Your task to perform on an android device: turn off improve location accuracy Image 0: 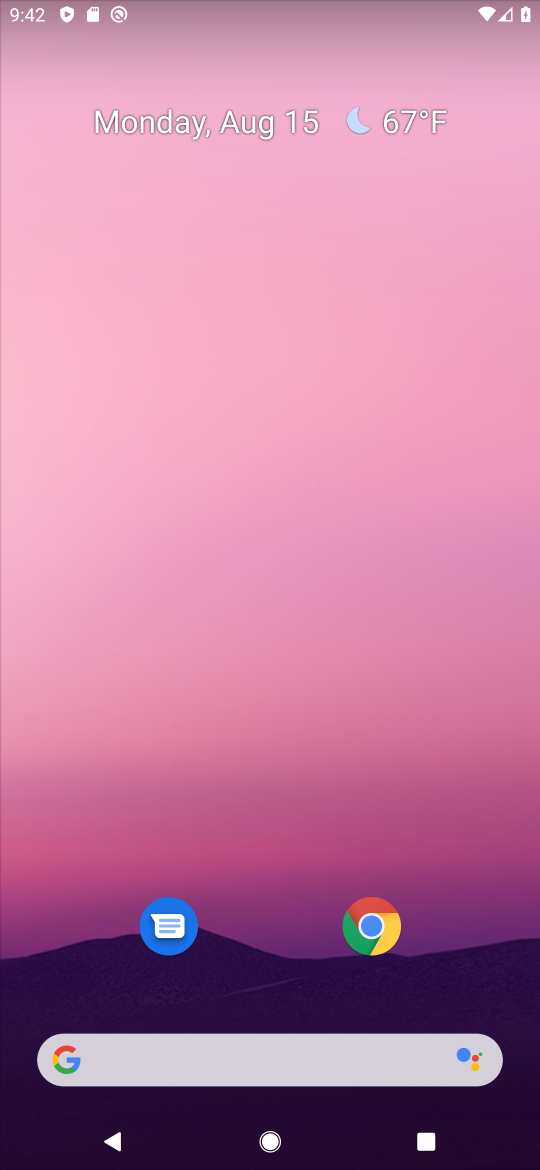
Step 0: press home button
Your task to perform on an android device: turn off improve location accuracy Image 1: 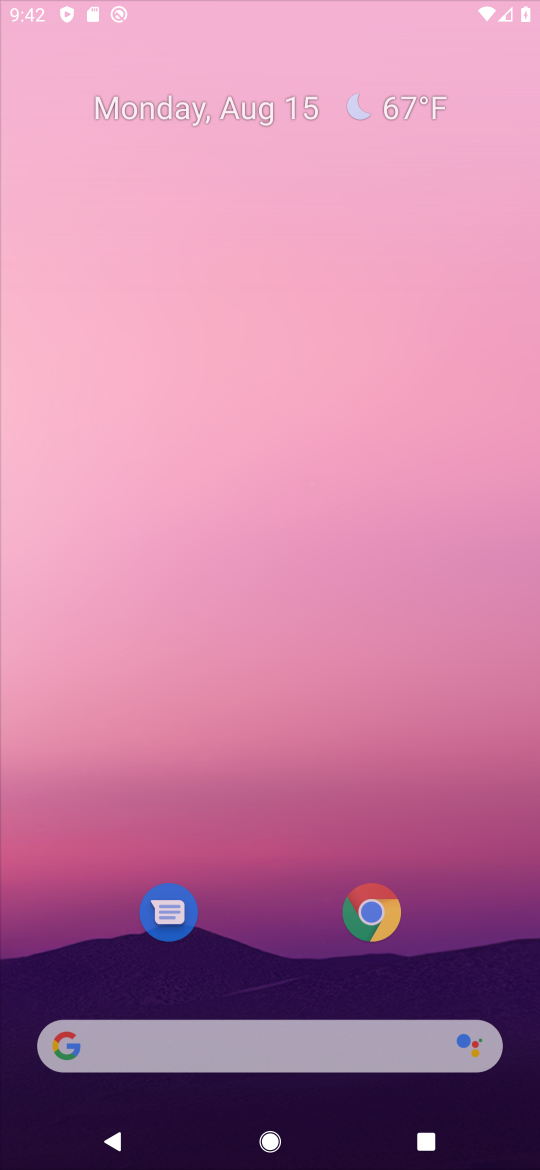
Step 1: drag from (272, 981) to (300, 108)
Your task to perform on an android device: turn off improve location accuracy Image 2: 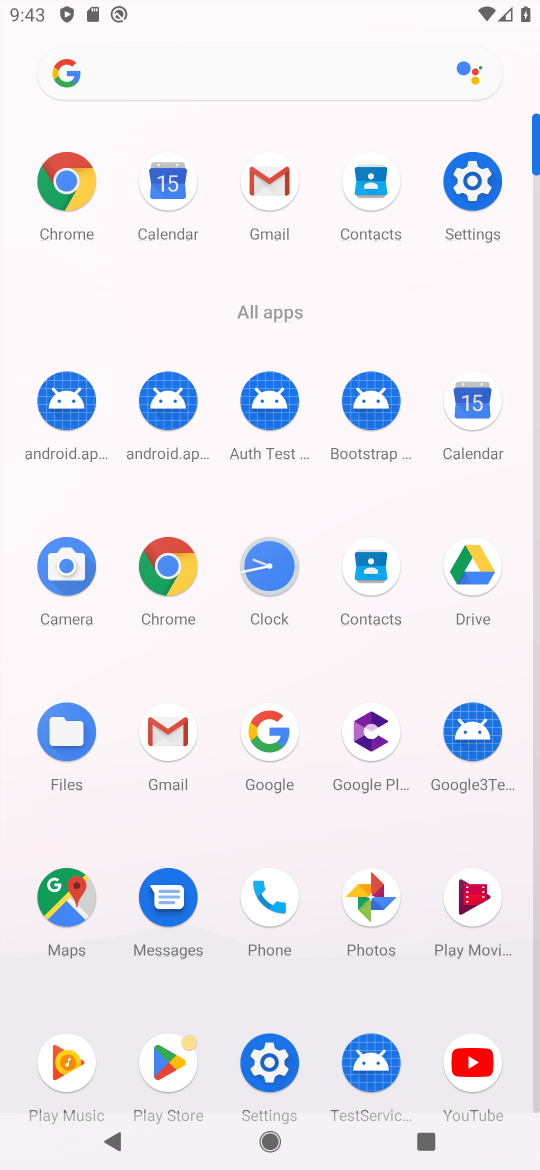
Step 2: click (271, 201)
Your task to perform on an android device: turn off improve location accuracy Image 3: 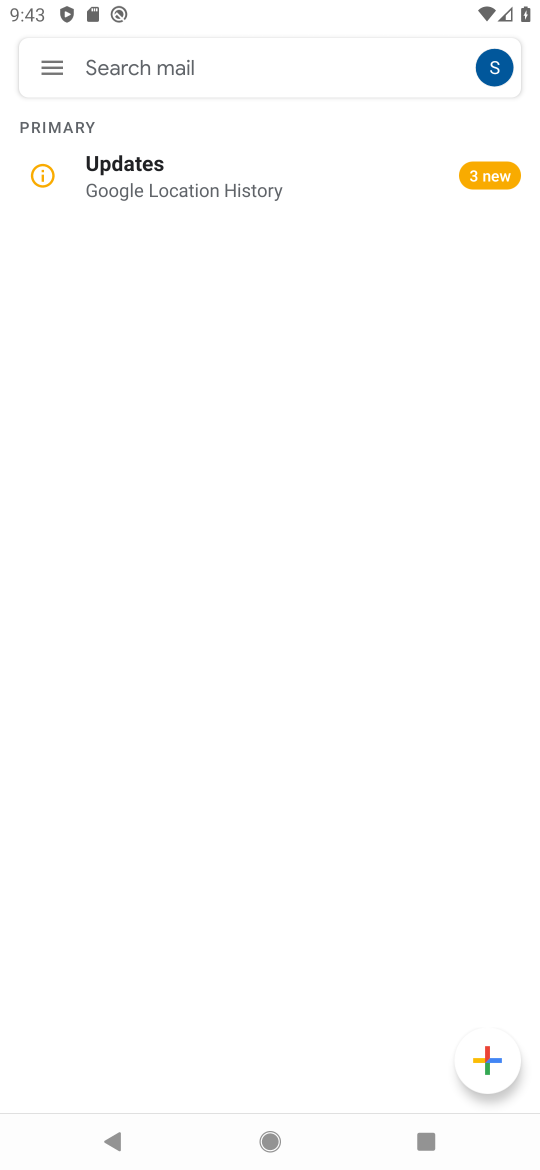
Step 3: click (53, 60)
Your task to perform on an android device: turn off improve location accuracy Image 4: 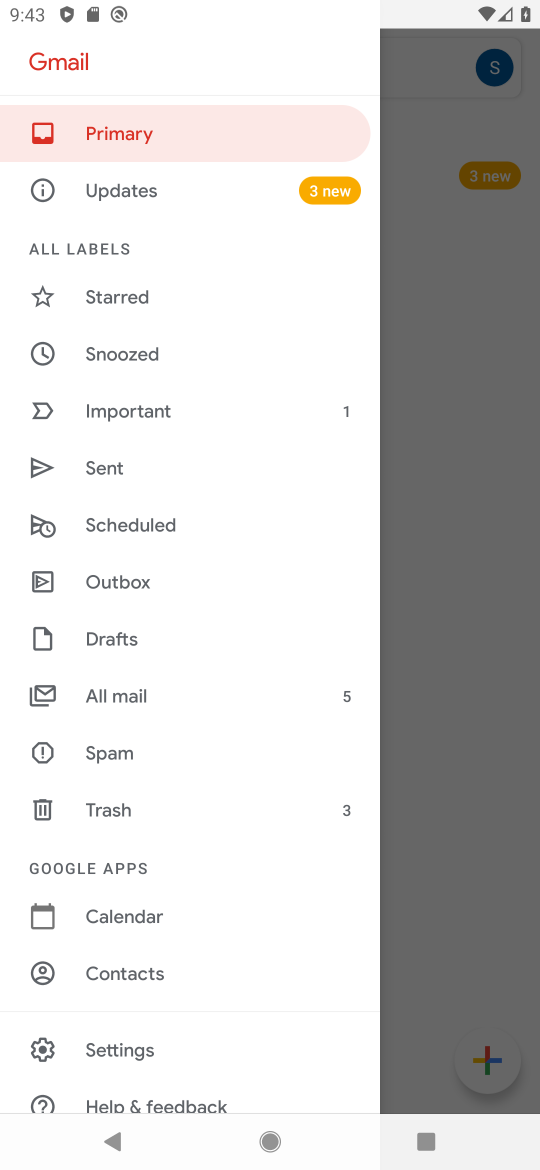
Step 4: press home button
Your task to perform on an android device: turn off improve location accuracy Image 5: 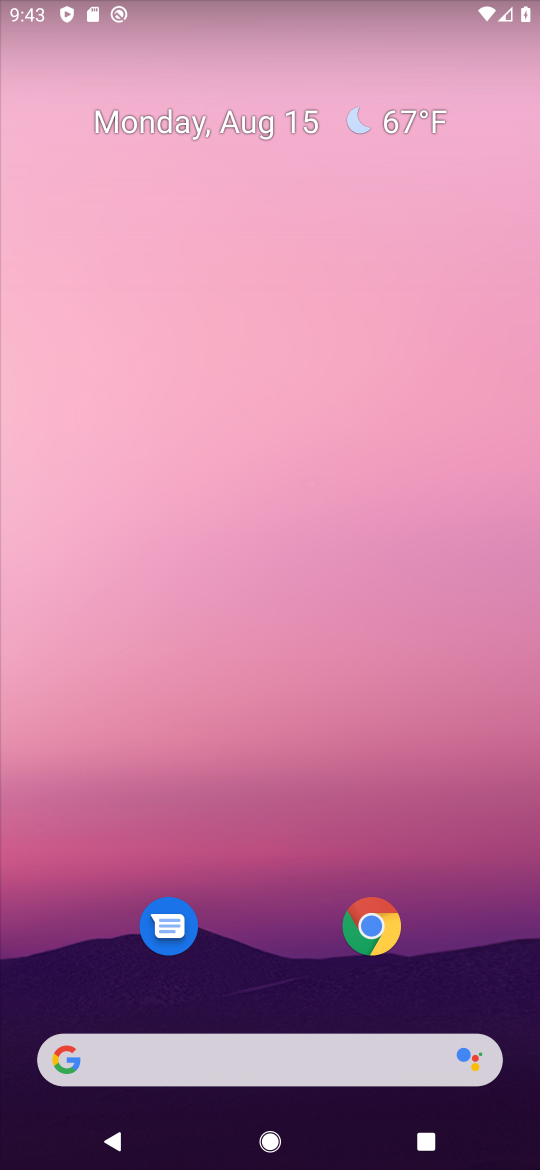
Step 5: drag from (242, 909) to (223, 115)
Your task to perform on an android device: turn off improve location accuracy Image 6: 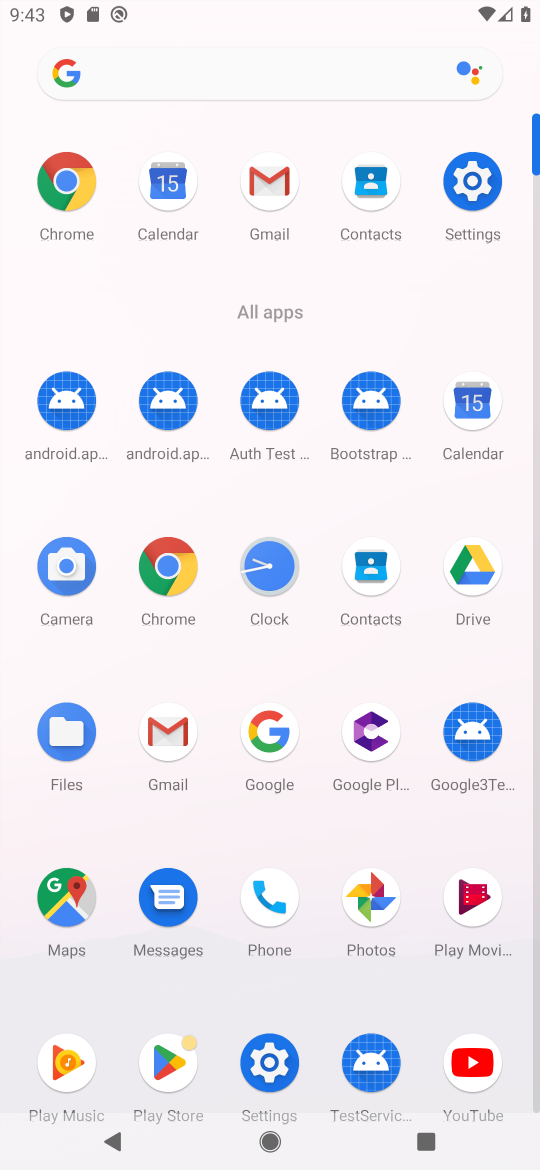
Step 6: click (461, 182)
Your task to perform on an android device: turn off improve location accuracy Image 7: 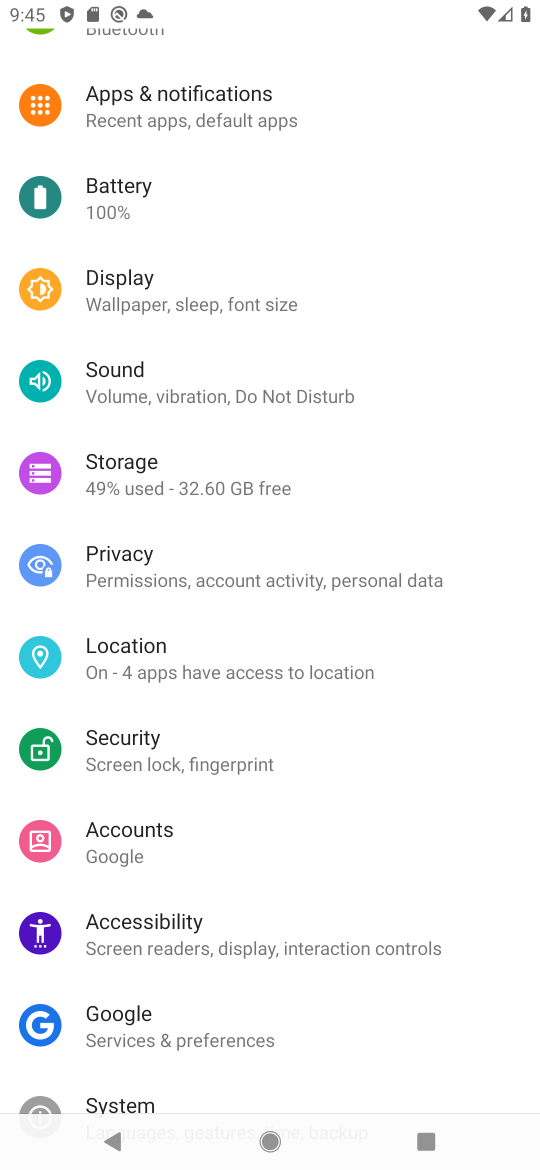
Step 7: drag from (300, 285) to (241, 131)
Your task to perform on an android device: turn off improve location accuracy Image 8: 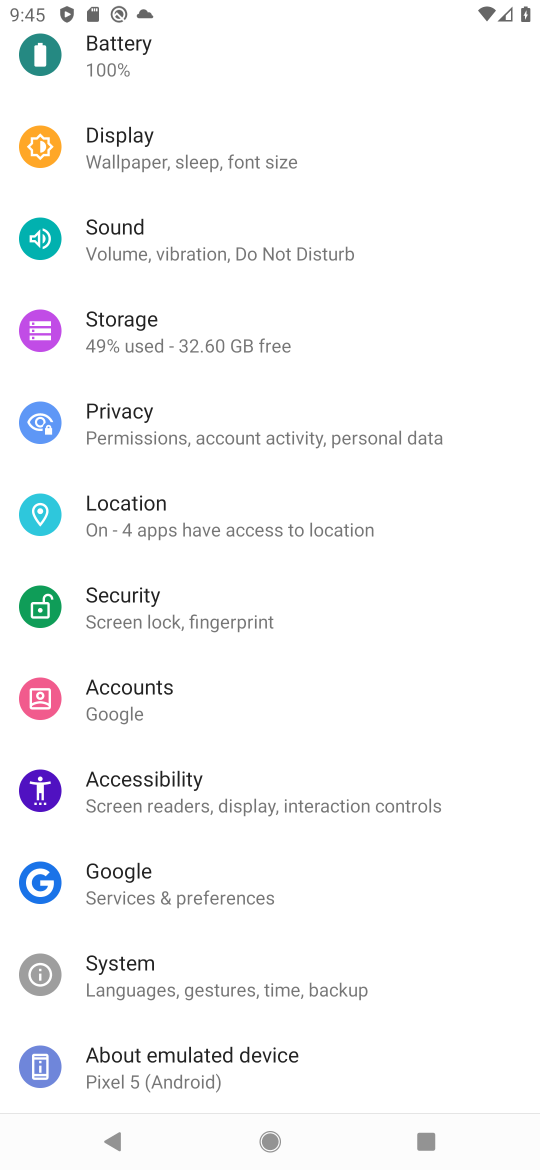
Step 8: click (109, 516)
Your task to perform on an android device: turn off improve location accuracy Image 9: 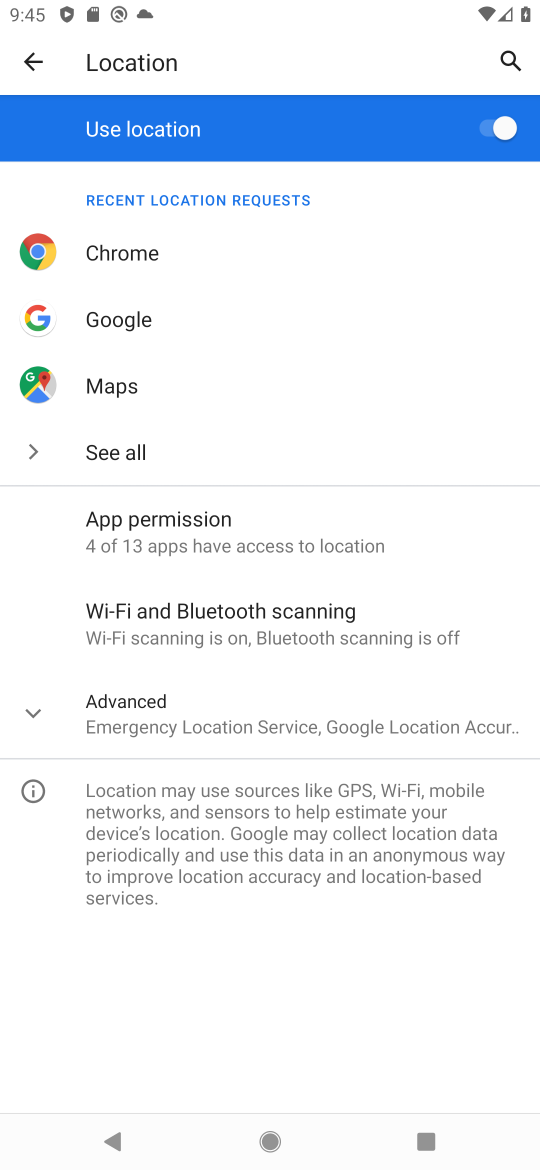
Step 9: click (168, 697)
Your task to perform on an android device: turn off improve location accuracy Image 10: 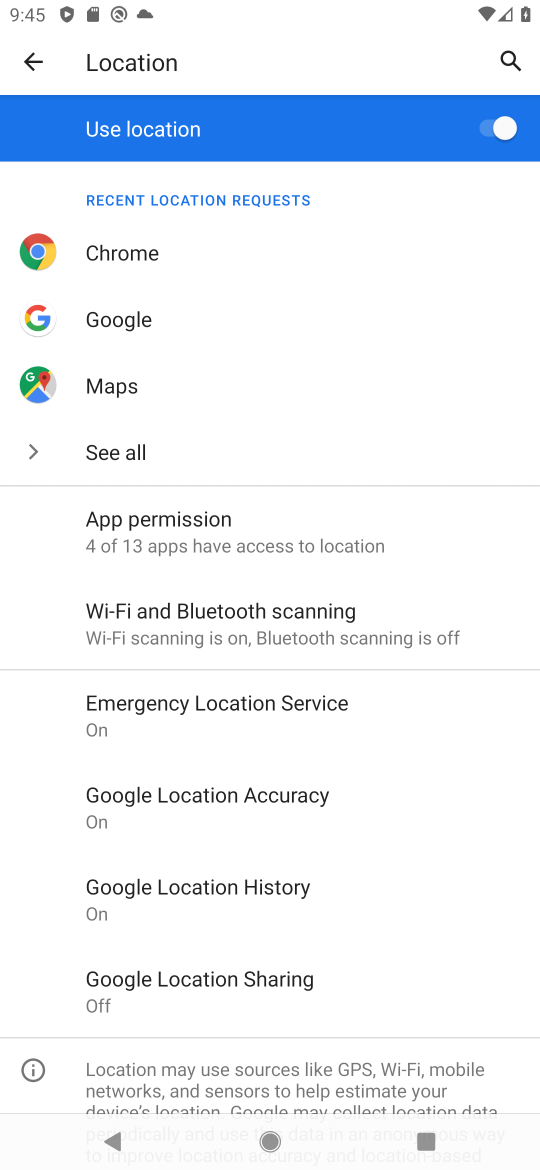
Step 10: click (128, 793)
Your task to perform on an android device: turn off improve location accuracy Image 11: 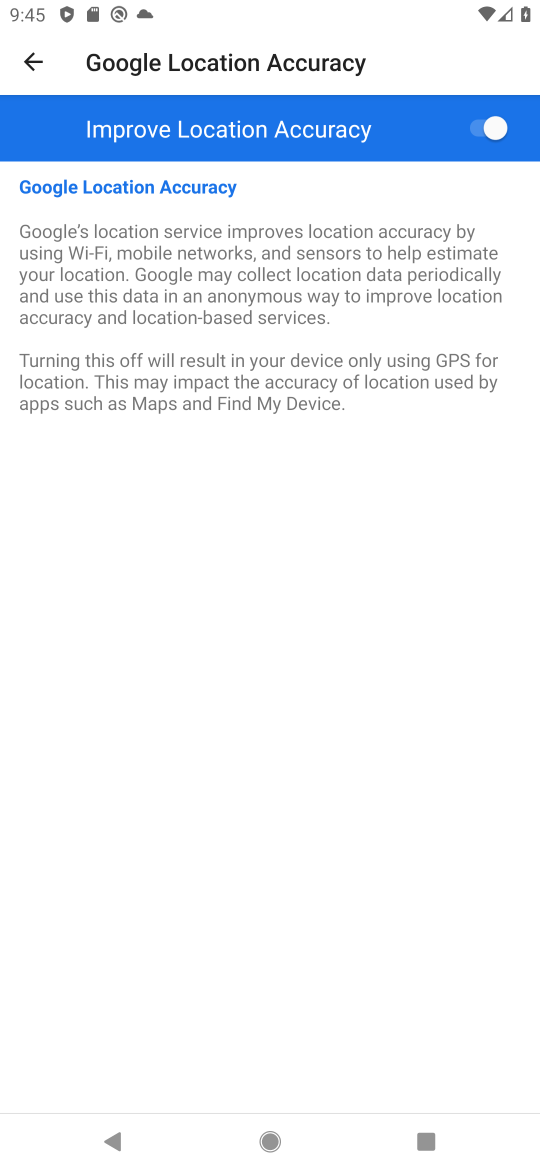
Step 11: click (363, 127)
Your task to perform on an android device: turn off improve location accuracy Image 12: 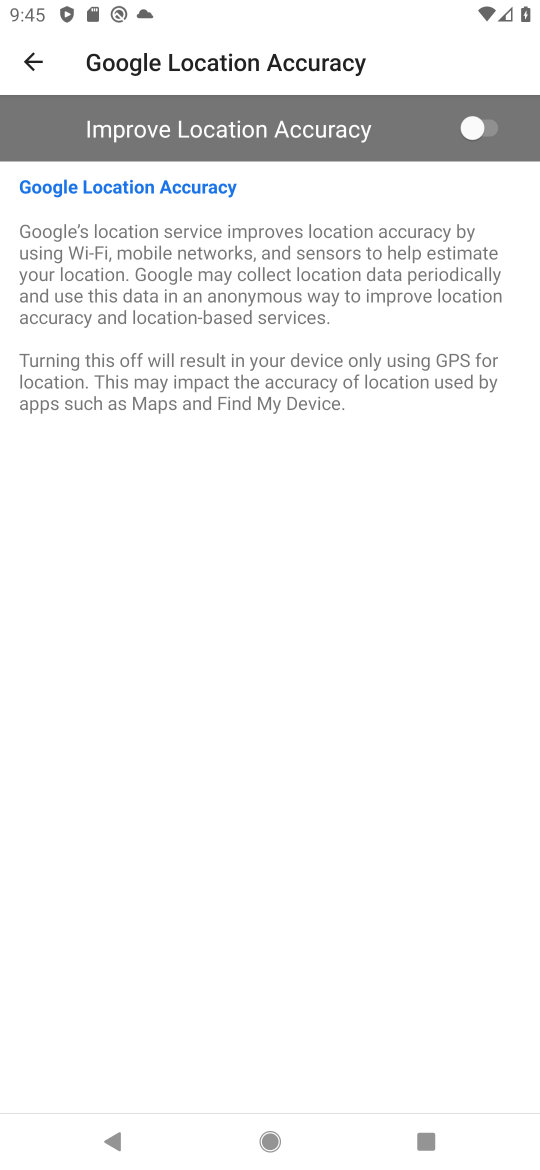
Step 12: task complete